Your task to perform on an android device: turn on javascript in the chrome app Image 0: 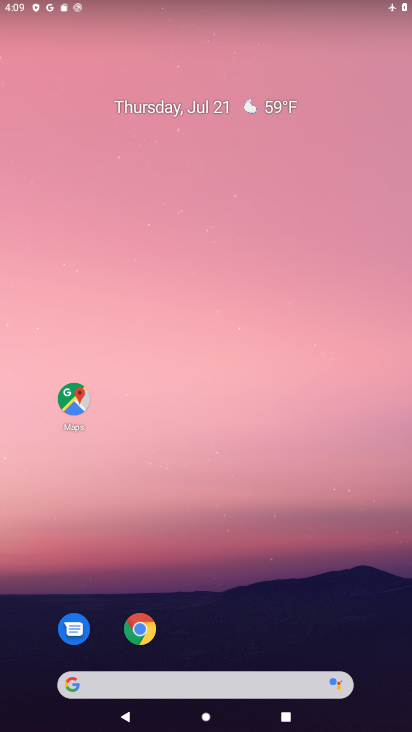
Step 0: click (140, 628)
Your task to perform on an android device: turn on javascript in the chrome app Image 1: 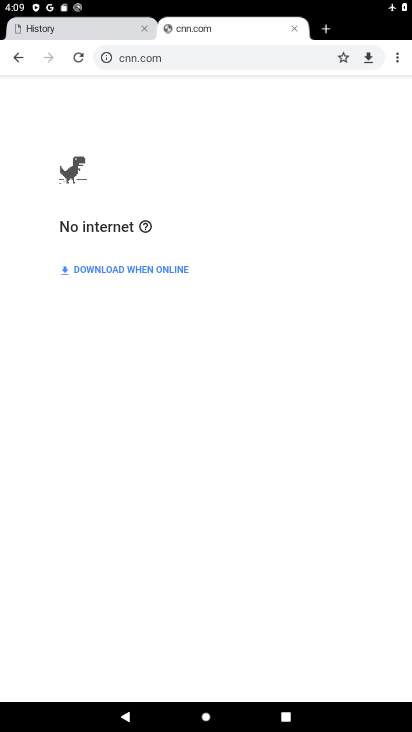
Step 1: click (396, 56)
Your task to perform on an android device: turn on javascript in the chrome app Image 2: 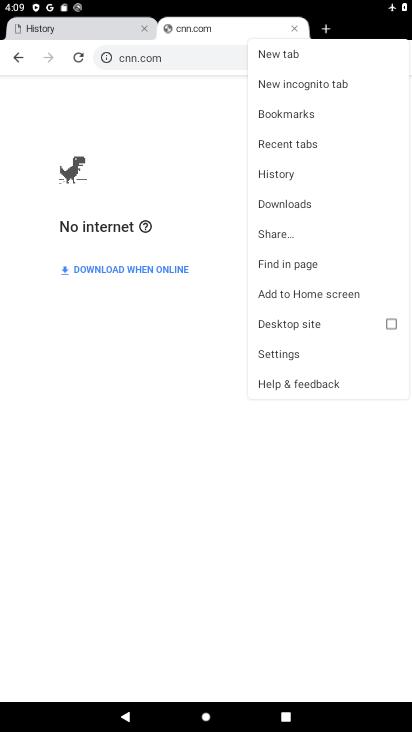
Step 2: click (286, 350)
Your task to perform on an android device: turn on javascript in the chrome app Image 3: 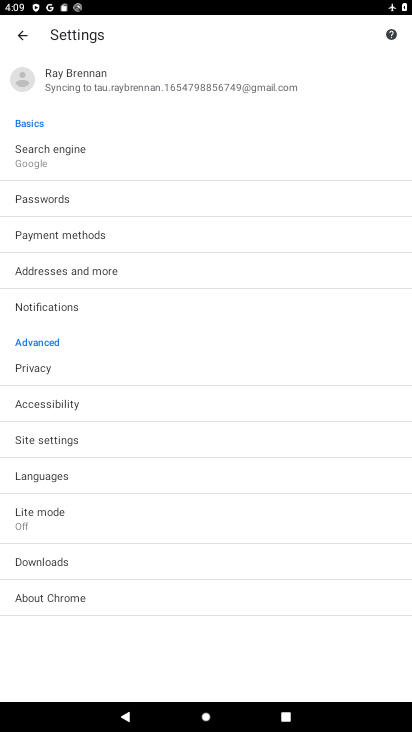
Step 3: click (59, 439)
Your task to perform on an android device: turn on javascript in the chrome app Image 4: 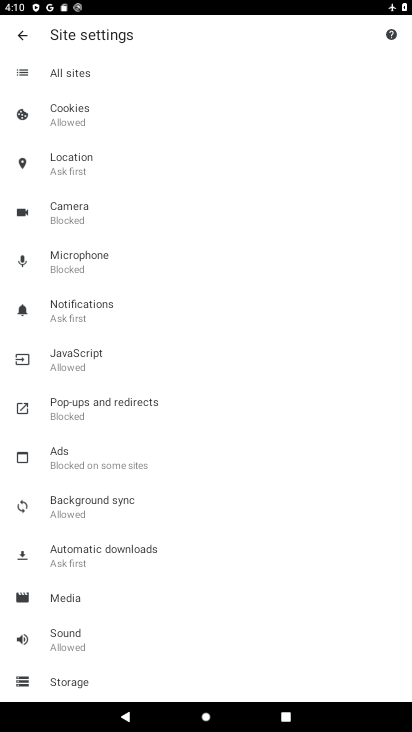
Step 4: click (77, 355)
Your task to perform on an android device: turn on javascript in the chrome app Image 5: 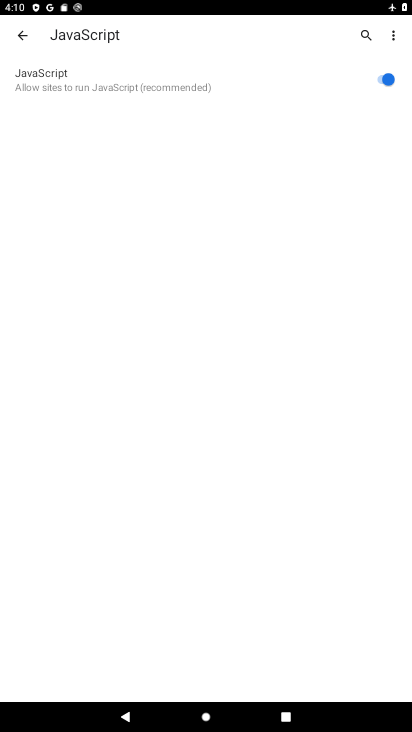
Step 5: task complete